Your task to perform on an android device: turn on wifi Image 0: 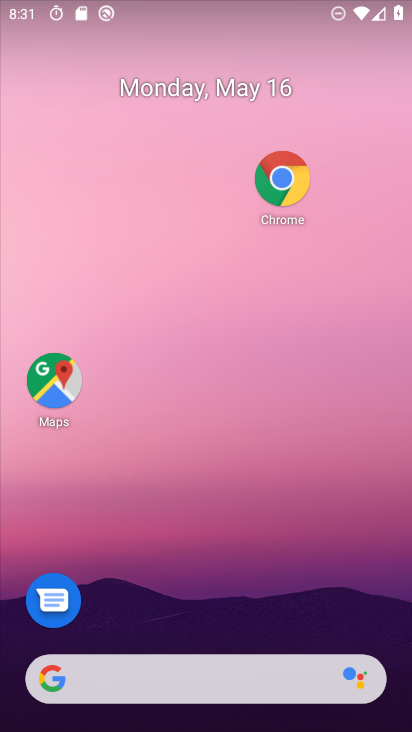
Step 0: drag from (198, 686) to (289, 148)
Your task to perform on an android device: turn on wifi Image 1: 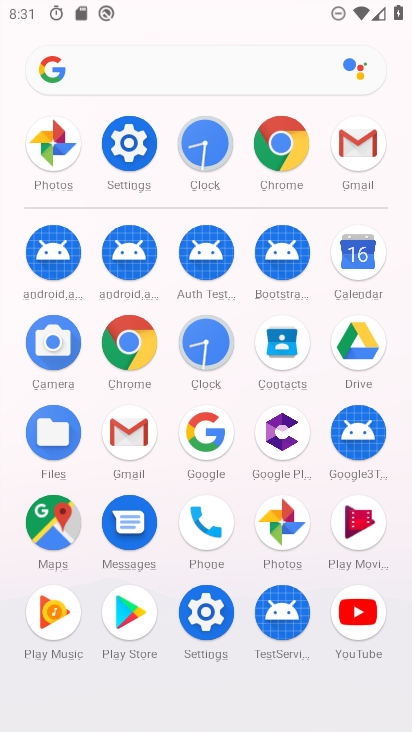
Step 1: click (134, 148)
Your task to perform on an android device: turn on wifi Image 2: 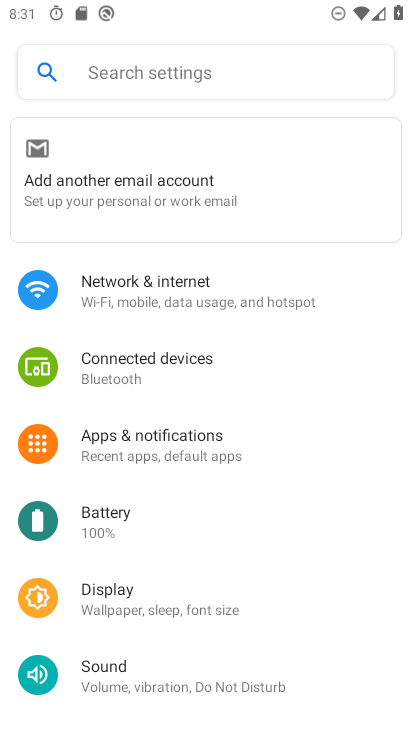
Step 2: click (204, 278)
Your task to perform on an android device: turn on wifi Image 3: 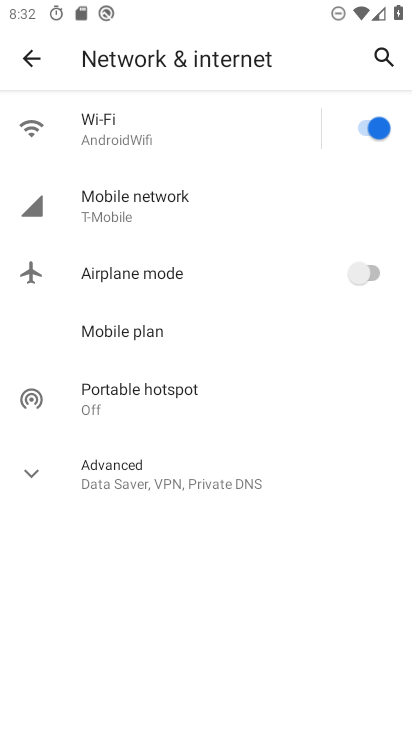
Step 3: task complete